Your task to perform on an android device: turn off smart reply in the gmail app Image 0: 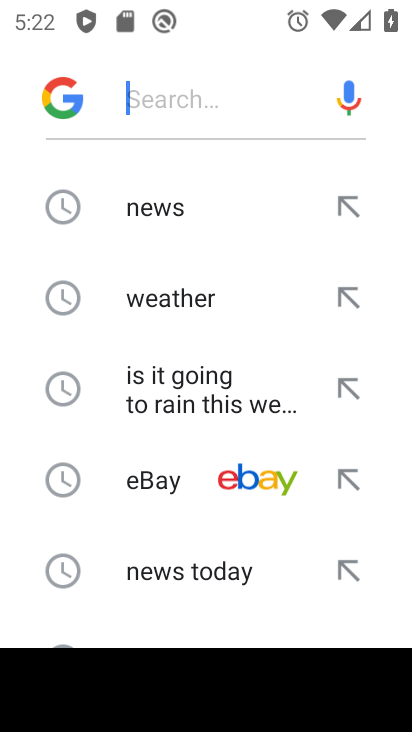
Step 0: press home button
Your task to perform on an android device: turn off smart reply in the gmail app Image 1: 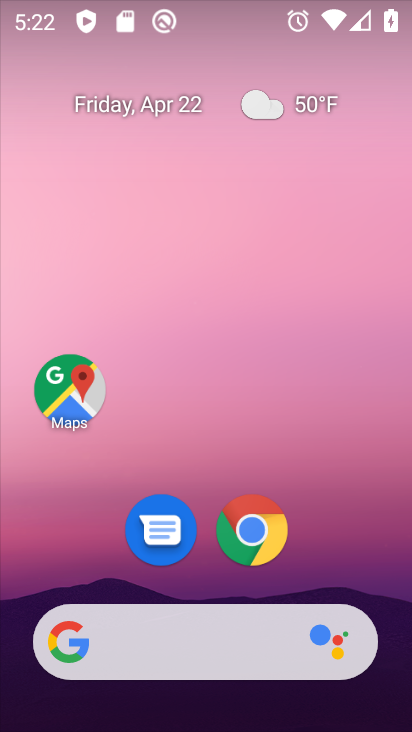
Step 1: drag from (342, 443) to (310, 106)
Your task to perform on an android device: turn off smart reply in the gmail app Image 2: 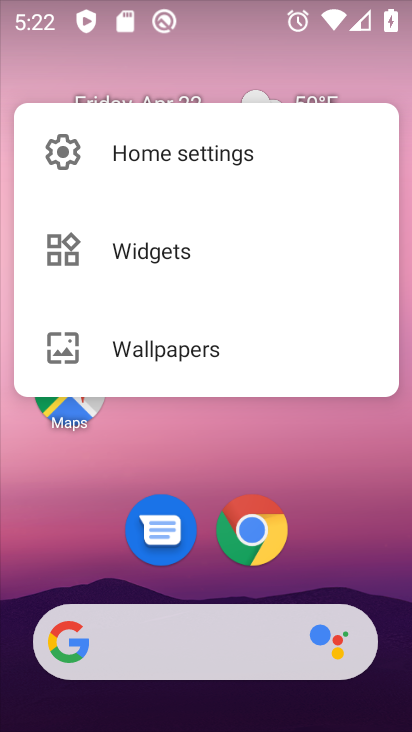
Step 2: click (360, 477)
Your task to perform on an android device: turn off smart reply in the gmail app Image 3: 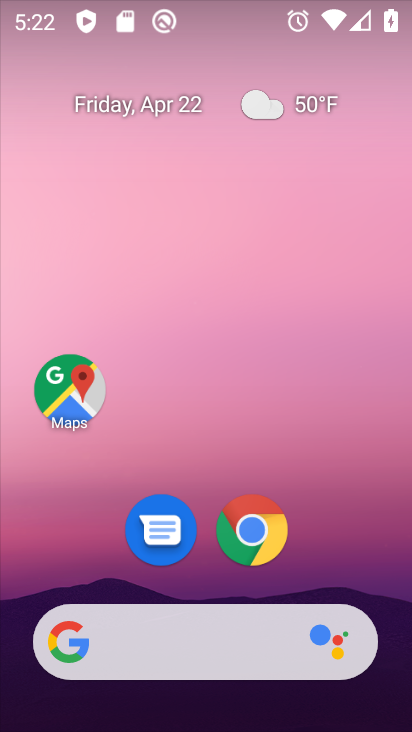
Step 3: drag from (364, 484) to (370, 149)
Your task to perform on an android device: turn off smart reply in the gmail app Image 4: 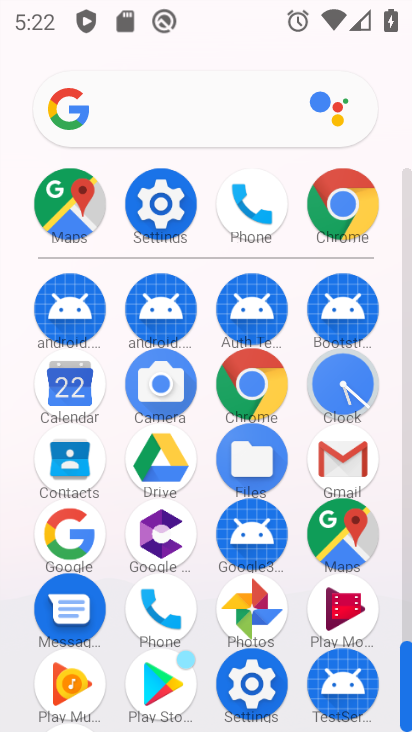
Step 4: click (332, 436)
Your task to perform on an android device: turn off smart reply in the gmail app Image 5: 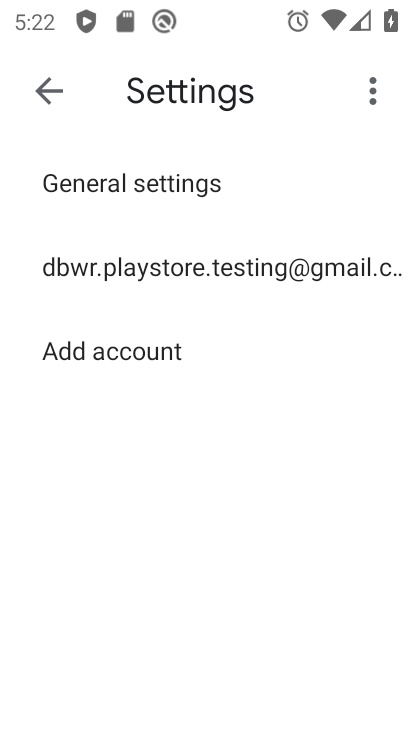
Step 5: click (305, 272)
Your task to perform on an android device: turn off smart reply in the gmail app Image 6: 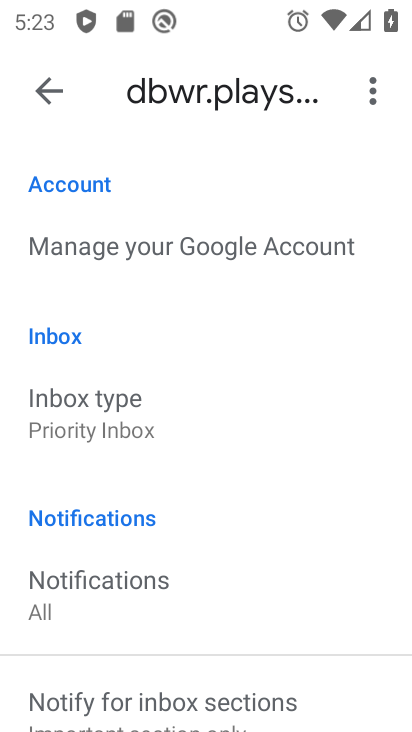
Step 6: drag from (360, 461) to (350, 69)
Your task to perform on an android device: turn off smart reply in the gmail app Image 7: 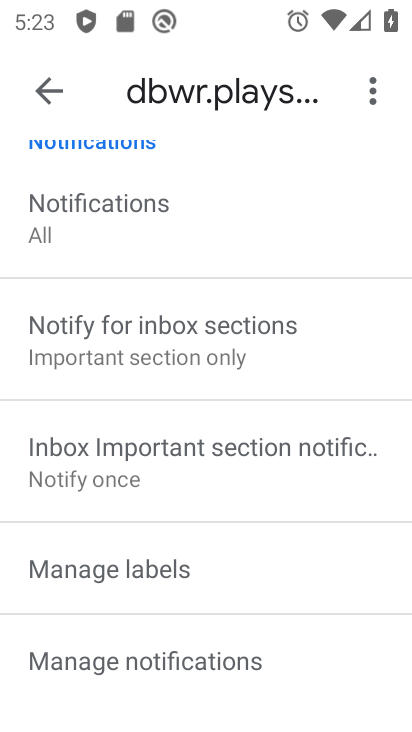
Step 7: drag from (378, 663) to (346, 232)
Your task to perform on an android device: turn off smart reply in the gmail app Image 8: 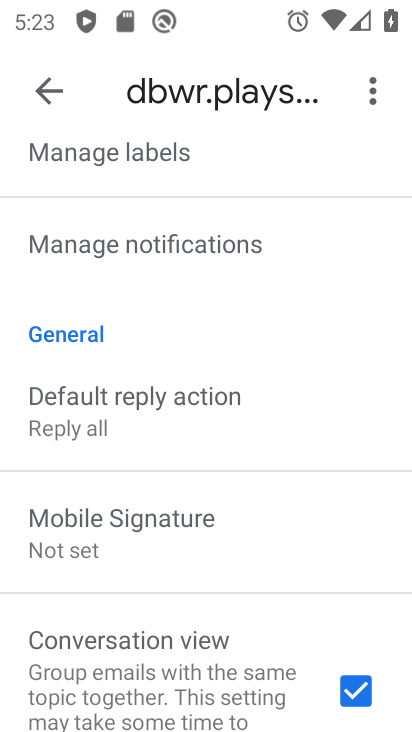
Step 8: drag from (332, 566) to (378, 176)
Your task to perform on an android device: turn off smart reply in the gmail app Image 9: 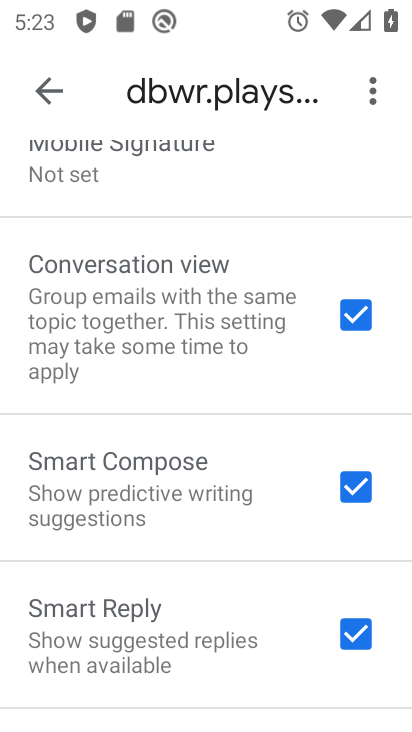
Step 9: click (367, 630)
Your task to perform on an android device: turn off smart reply in the gmail app Image 10: 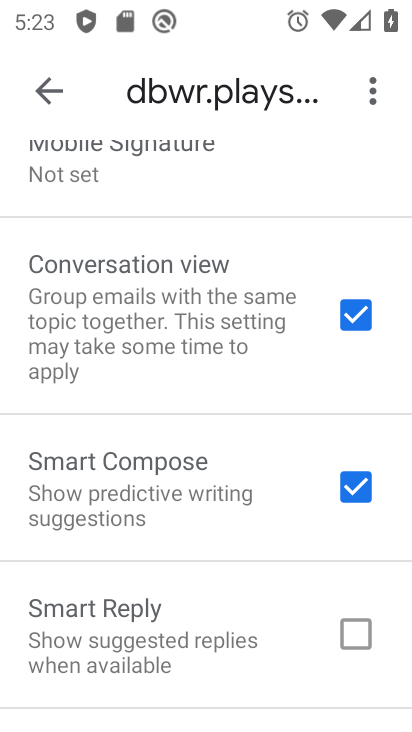
Step 10: task complete